Your task to perform on an android device: install app "Move to iOS" Image 0: 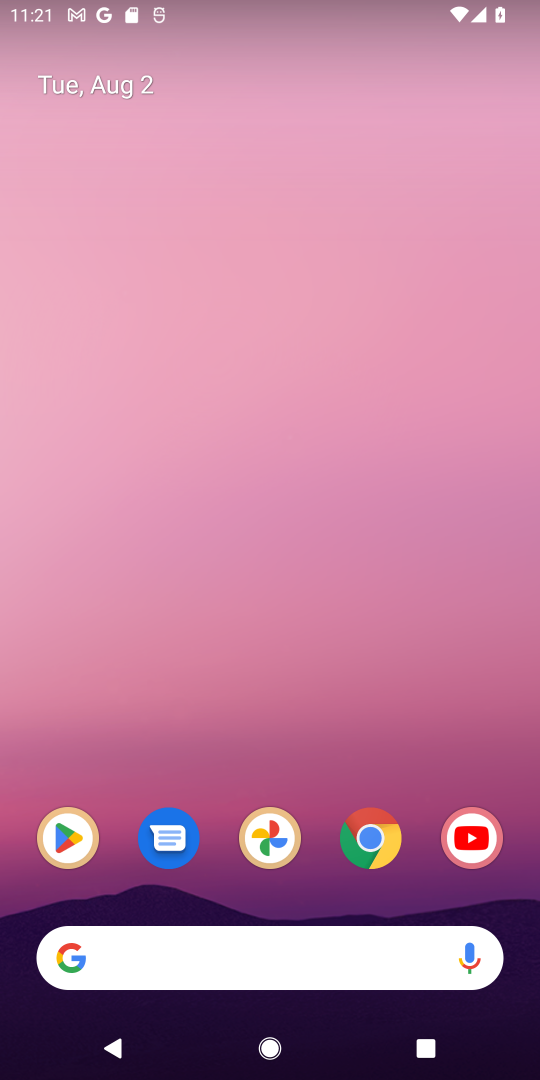
Step 0: click (82, 856)
Your task to perform on an android device: install app "Move to iOS" Image 1: 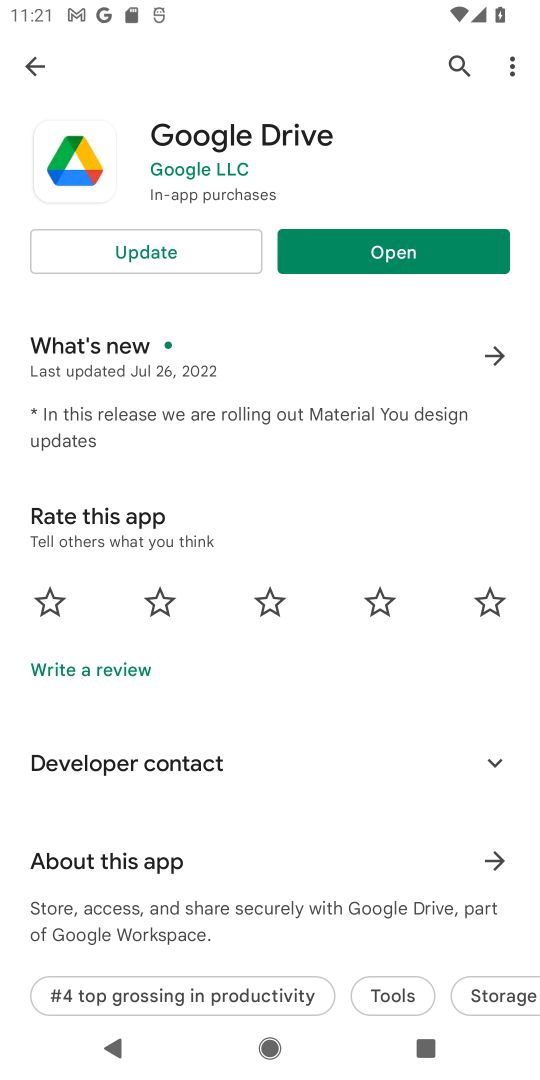
Step 1: click (461, 64)
Your task to perform on an android device: install app "Move to iOS" Image 2: 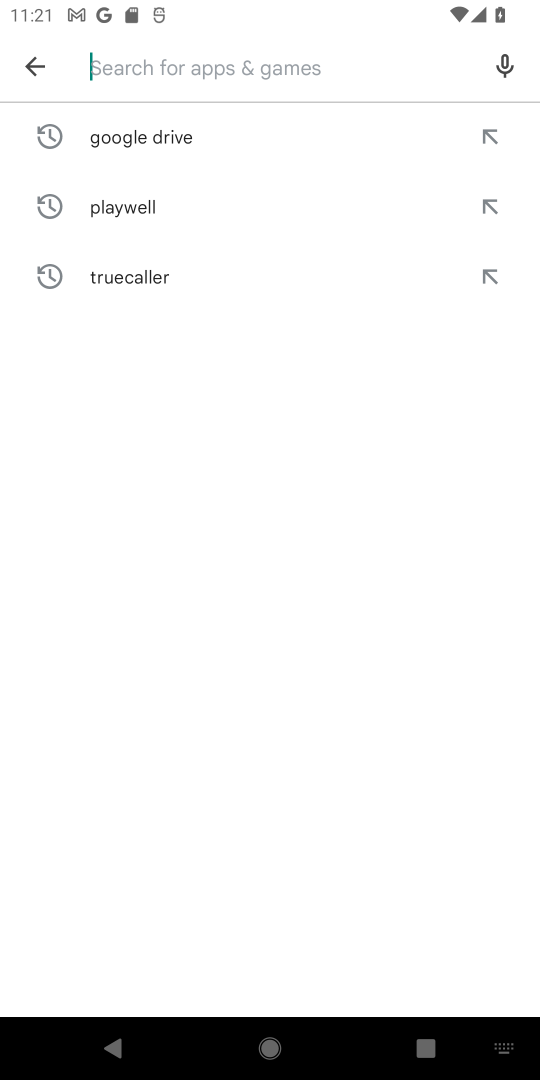
Step 2: type "move to ios"
Your task to perform on an android device: install app "Move to iOS" Image 3: 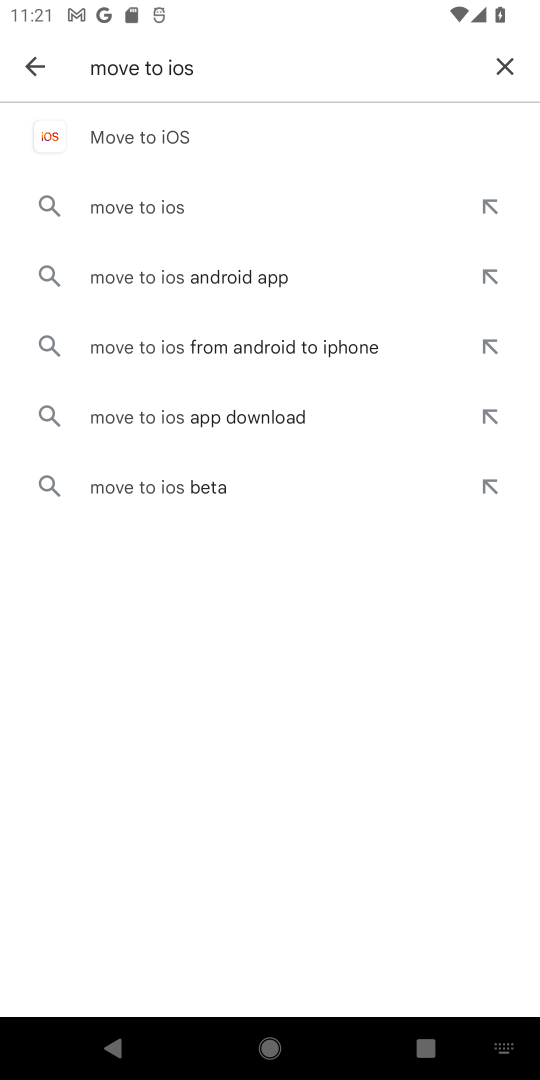
Step 3: click (140, 136)
Your task to perform on an android device: install app "Move to iOS" Image 4: 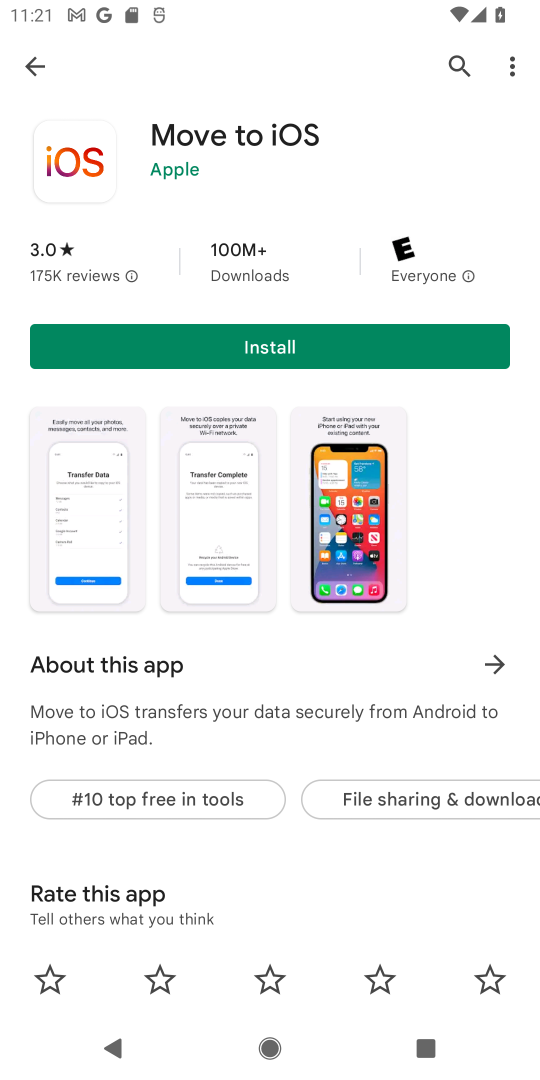
Step 4: click (312, 357)
Your task to perform on an android device: install app "Move to iOS" Image 5: 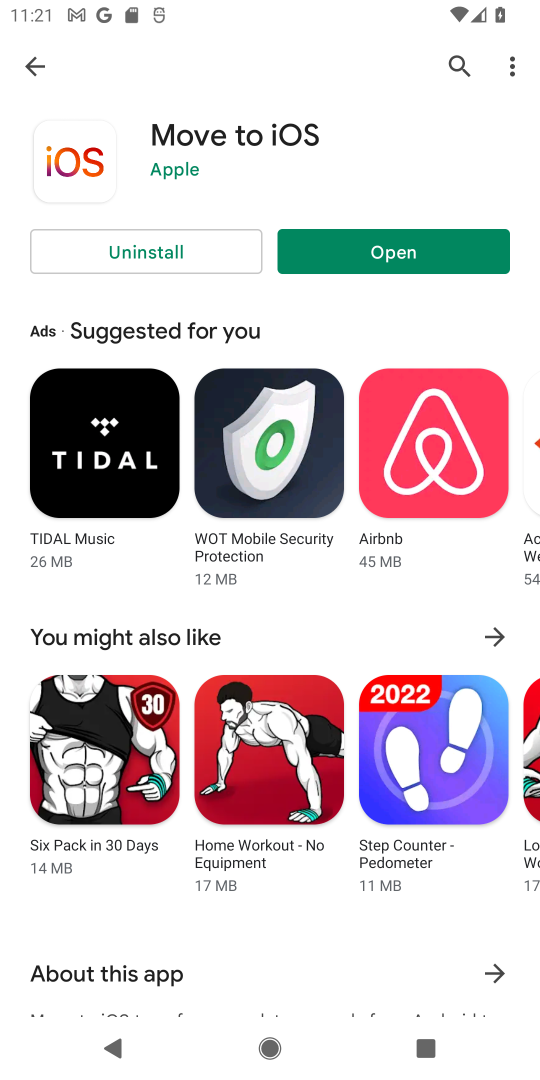
Step 5: task complete